Your task to perform on an android device: open app "Google Find My Device" (install if not already installed) Image 0: 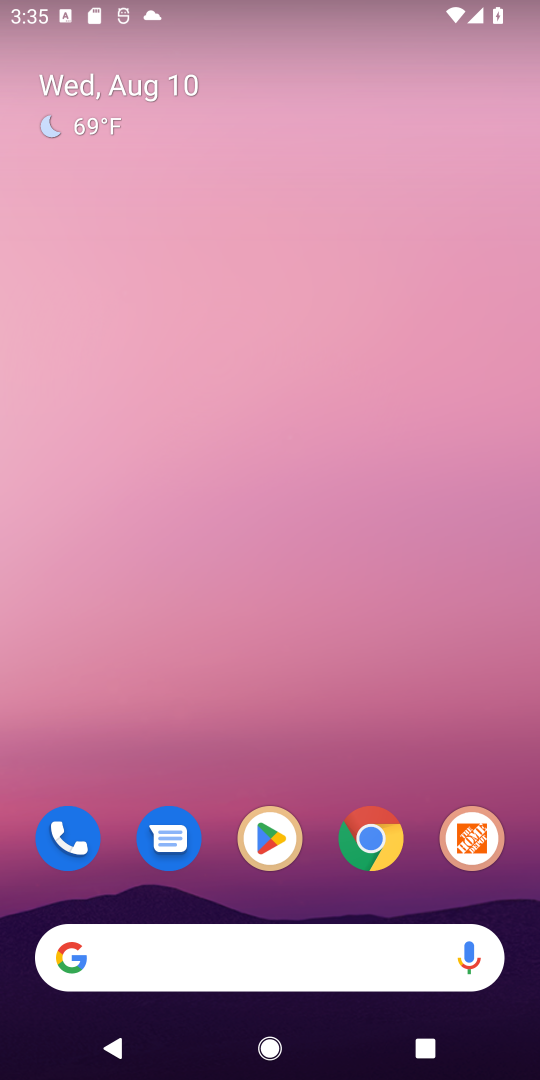
Step 0: press home button
Your task to perform on an android device: open app "Google Find My Device" (install if not already installed) Image 1: 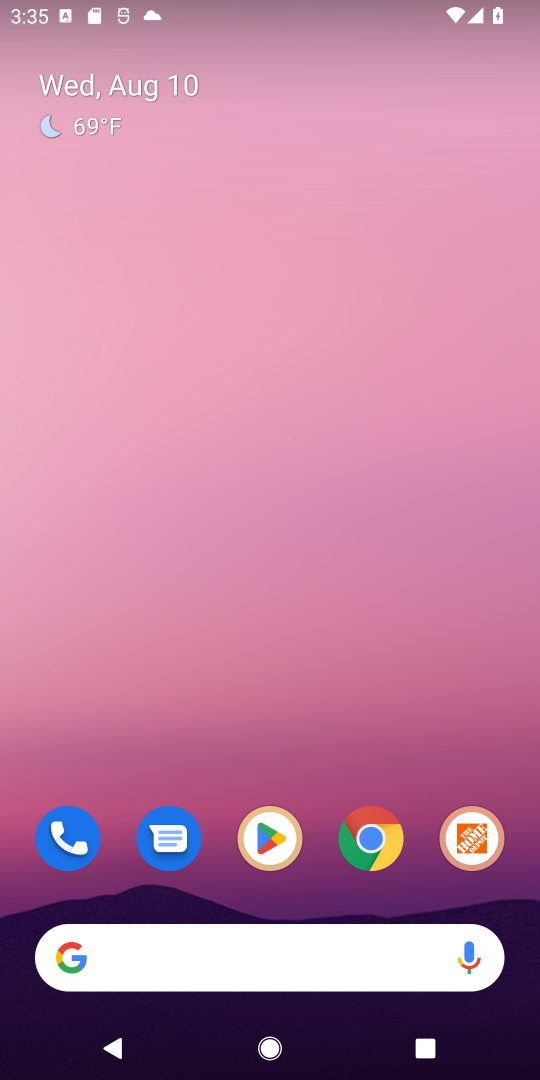
Step 1: click (258, 843)
Your task to perform on an android device: open app "Google Find My Device" (install if not already installed) Image 2: 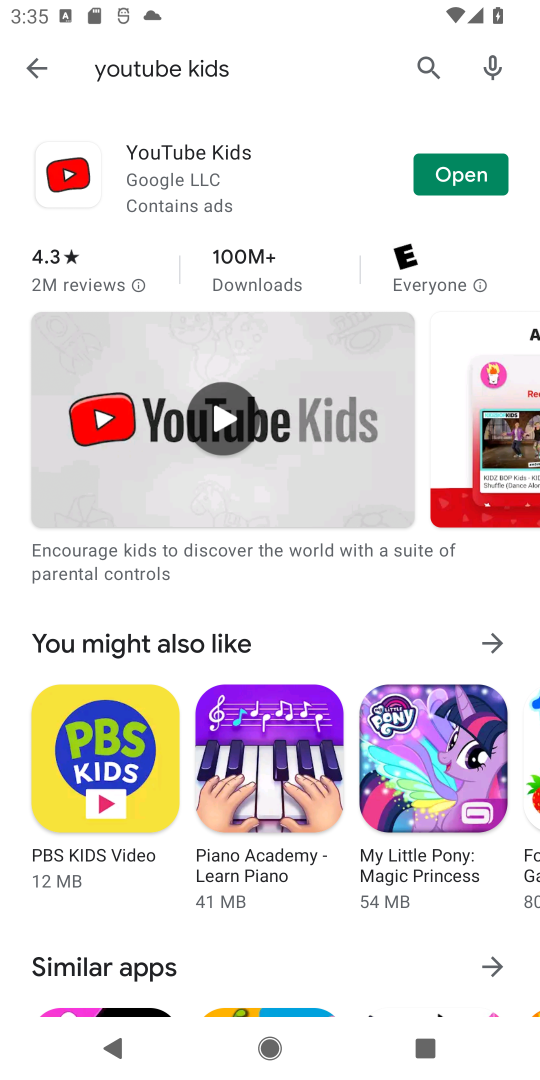
Step 2: click (428, 61)
Your task to perform on an android device: open app "Google Find My Device" (install if not already installed) Image 3: 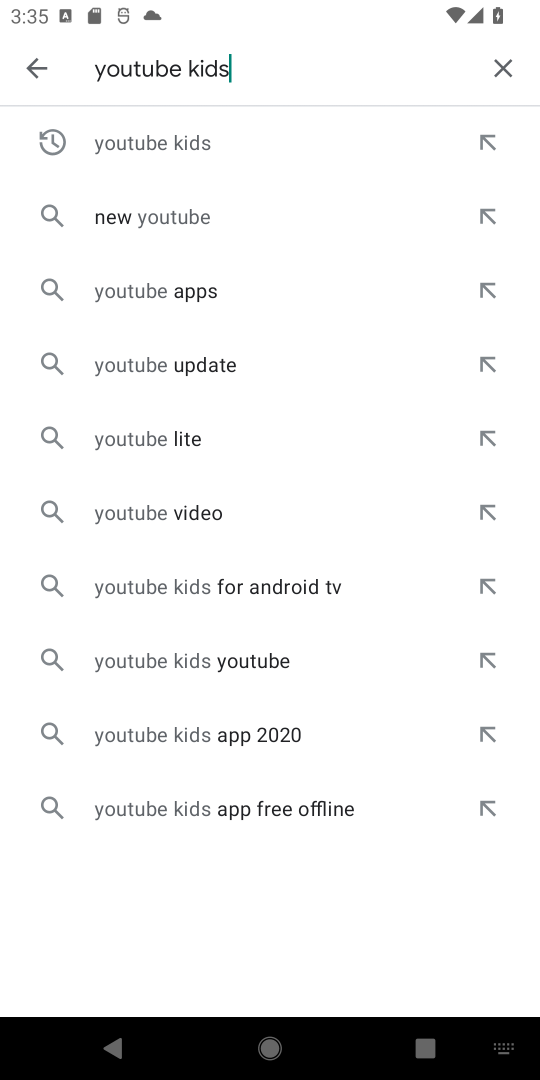
Step 3: click (498, 59)
Your task to perform on an android device: open app "Google Find My Device" (install if not already installed) Image 4: 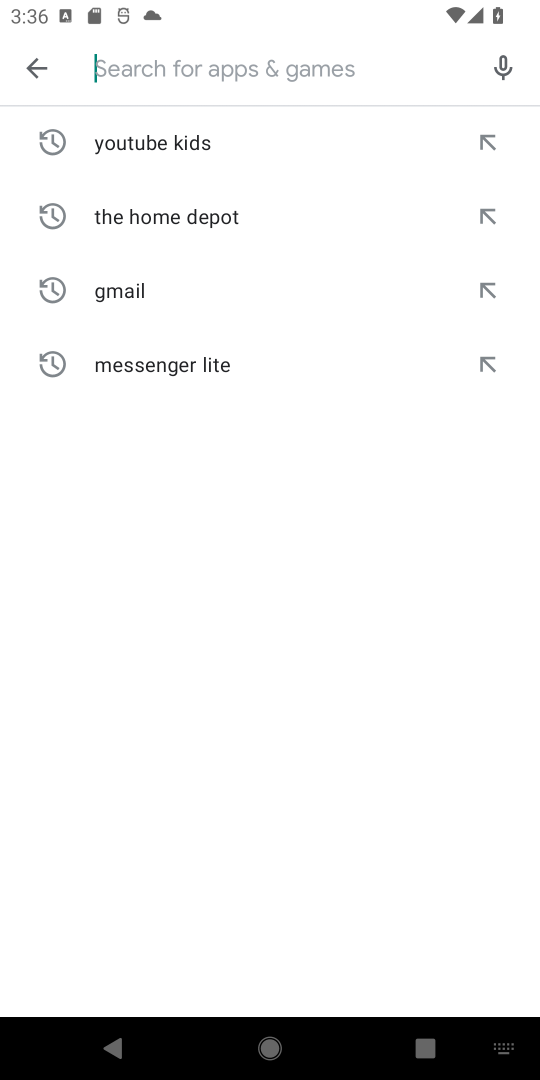
Step 4: type "Google Find My Device"
Your task to perform on an android device: open app "Google Find My Device" (install if not already installed) Image 5: 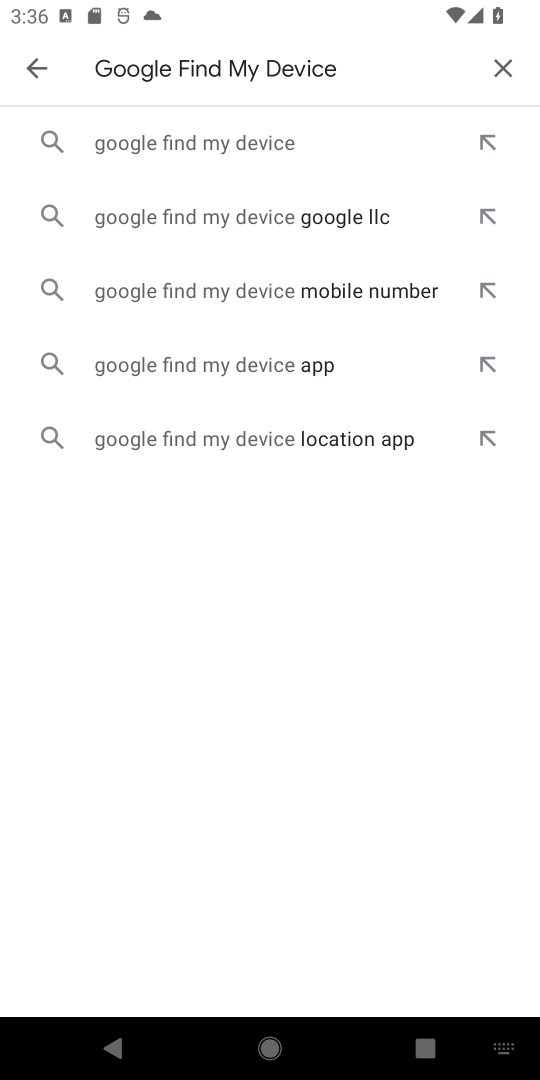
Step 5: click (210, 145)
Your task to perform on an android device: open app "Google Find My Device" (install if not already installed) Image 6: 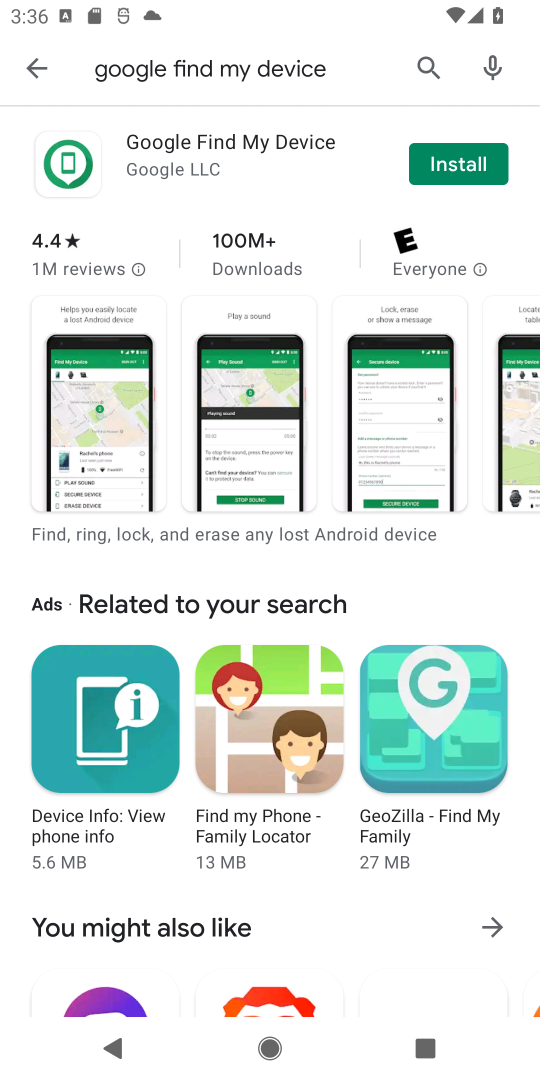
Step 6: click (452, 162)
Your task to perform on an android device: open app "Google Find My Device" (install if not already installed) Image 7: 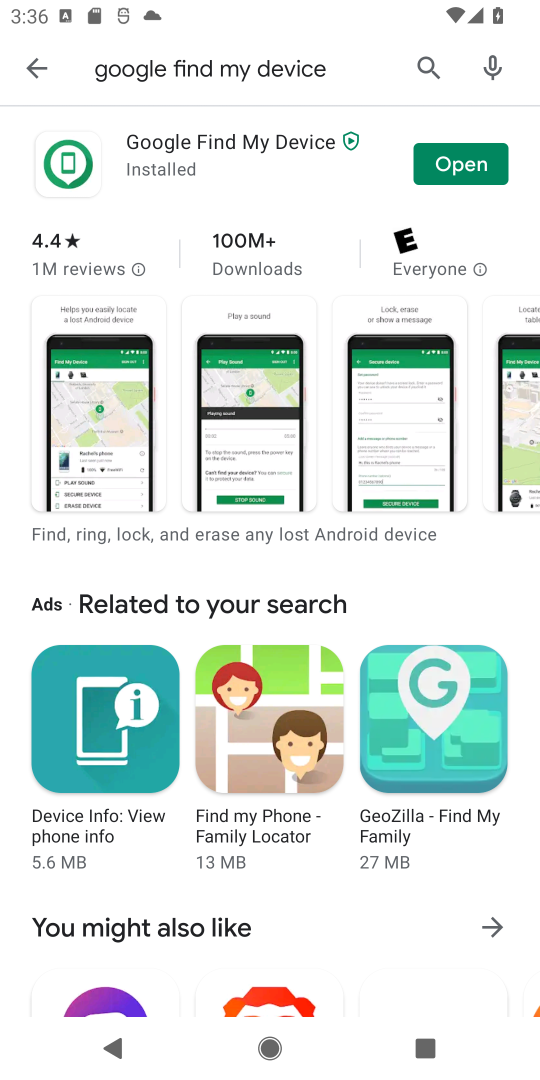
Step 7: task complete